Your task to perform on an android device: Do I have any events this weekend? Image 0: 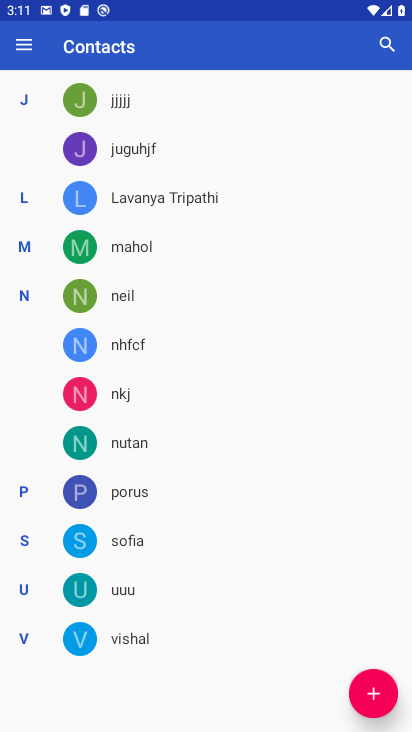
Step 0: press home button
Your task to perform on an android device: Do I have any events this weekend? Image 1: 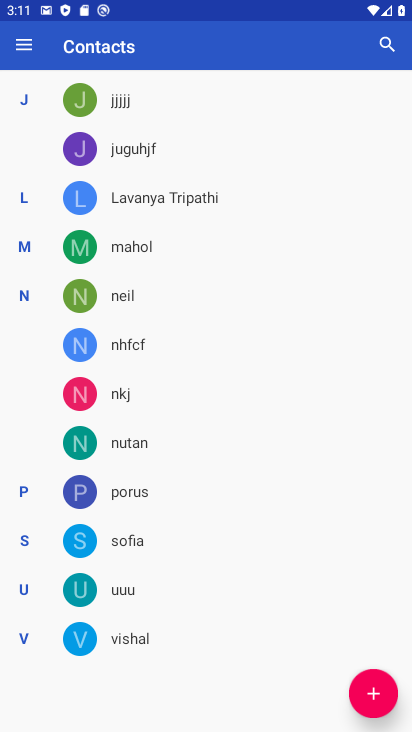
Step 1: press home button
Your task to perform on an android device: Do I have any events this weekend? Image 2: 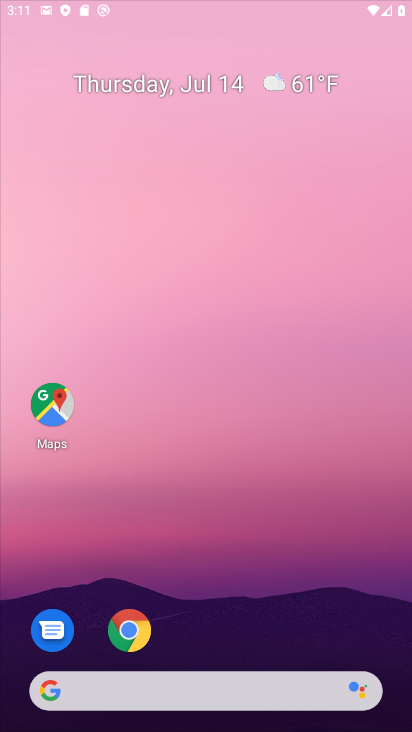
Step 2: press home button
Your task to perform on an android device: Do I have any events this weekend? Image 3: 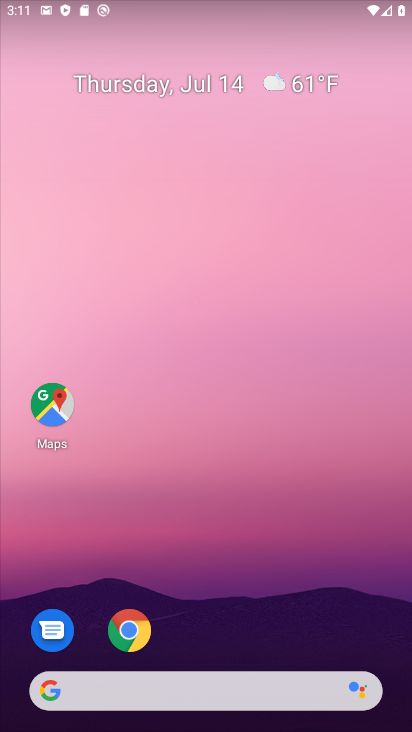
Step 3: drag from (260, 580) to (73, 10)
Your task to perform on an android device: Do I have any events this weekend? Image 4: 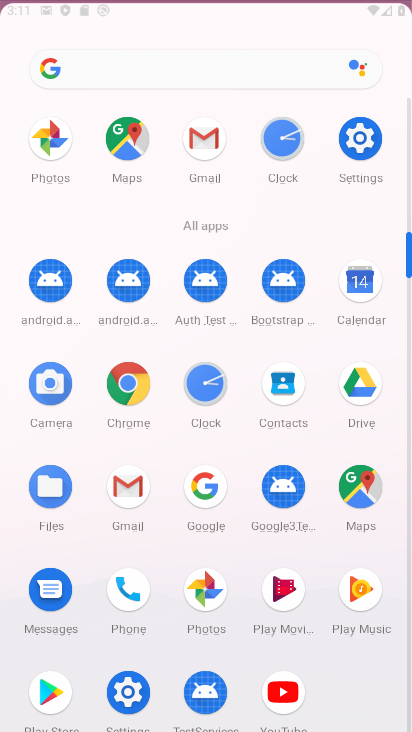
Step 4: drag from (217, 524) to (63, 11)
Your task to perform on an android device: Do I have any events this weekend? Image 5: 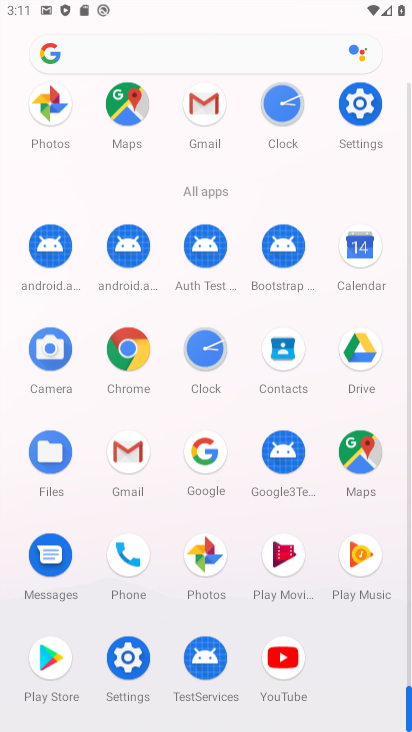
Step 5: drag from (230, 460) to (166, 97)
Your task to perform on an android device: Do I have any events this weekend? Image 6: 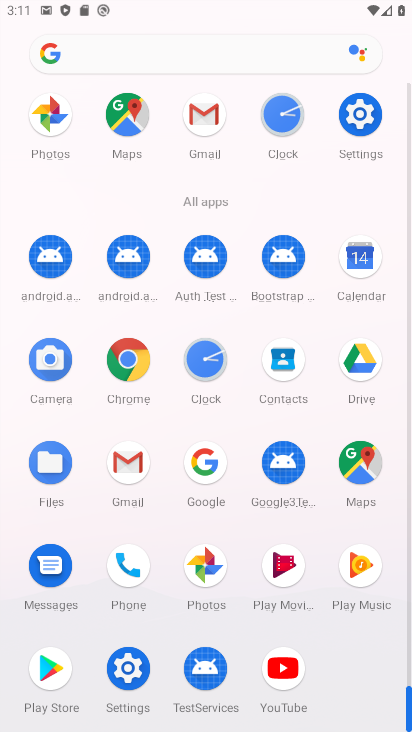
Step 6: click (365, 255)
Your task to perform on an android device: Do I have any events this weekend? Image 7: 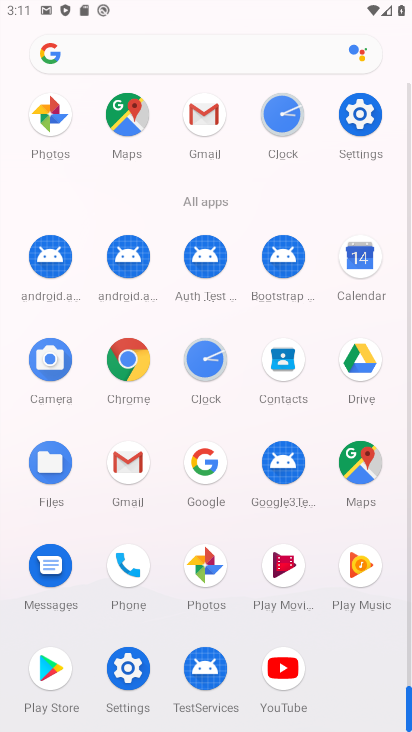
Step 7: click (364, 255)
Your task to perform on an android device: Do I have any events this weekend? Image 8: 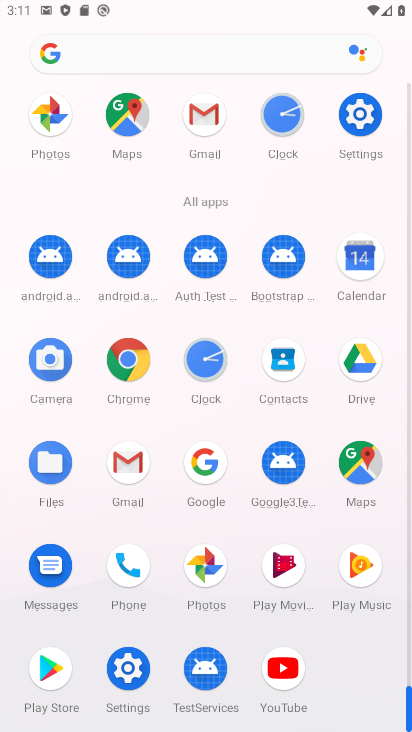
Step 8: click (364, 255)
Your task to perform on an android device: Do I have any events this weekend? Image 9: 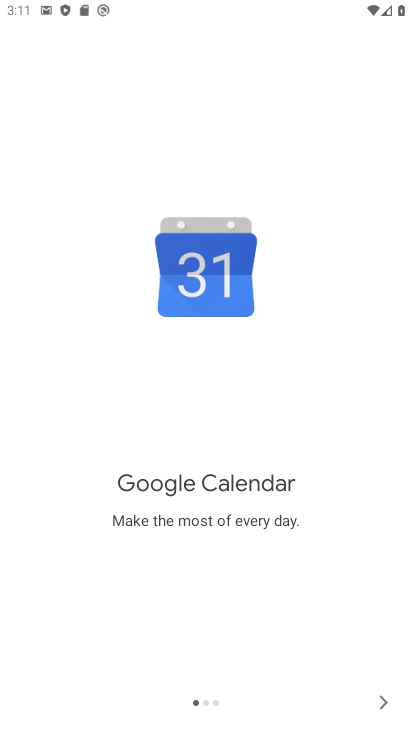
Step 9: click (383, 703)
Your task to perform on an android device: Do I have any events this weekend? Image 10: 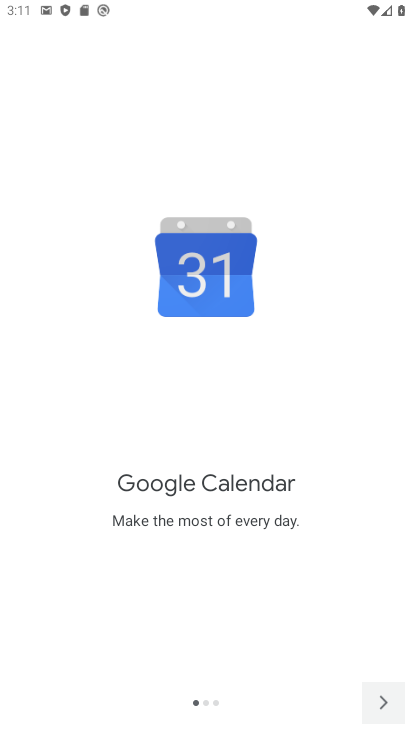
Step 10: click (381, 703)
Your task to perform on an android device: Do I have any events this weekend? Image 11: 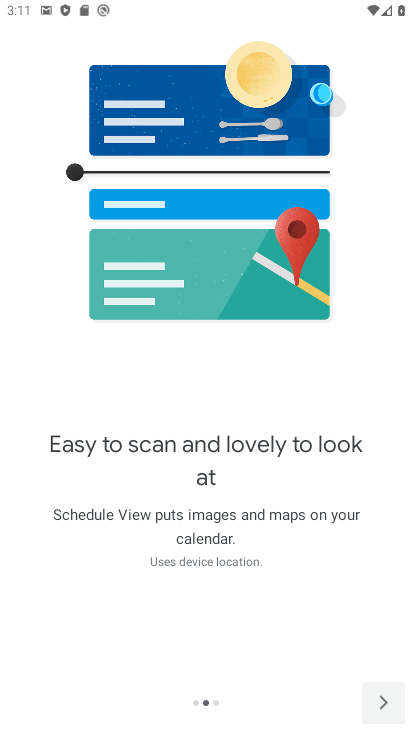
Step 11: click (381, 703)
Your task to perform on an android device: Do I have any events this weekend? Image 12: 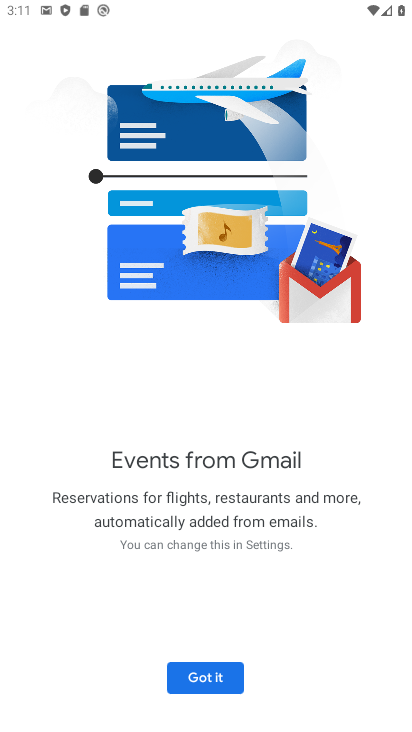
Step 12: click (378, 704)
Your task to perform on an android device: Do I have any events this weekend? Image 13: 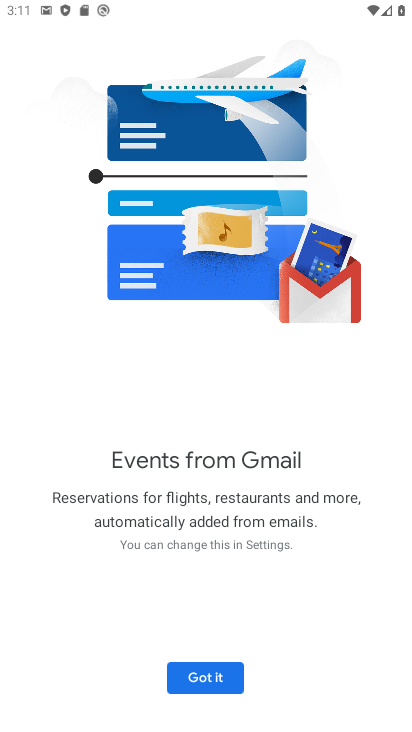
Step 13: click (380, 706)
Your task to perform on an android device: Do I have any events this weekend? Image 14: 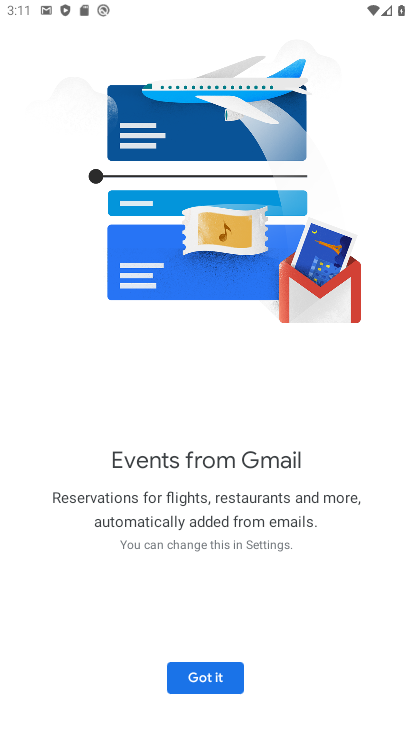
Step 14: click (206, 689)
Your task to perform on an android device: Do I have any events this weekend? Image 15: 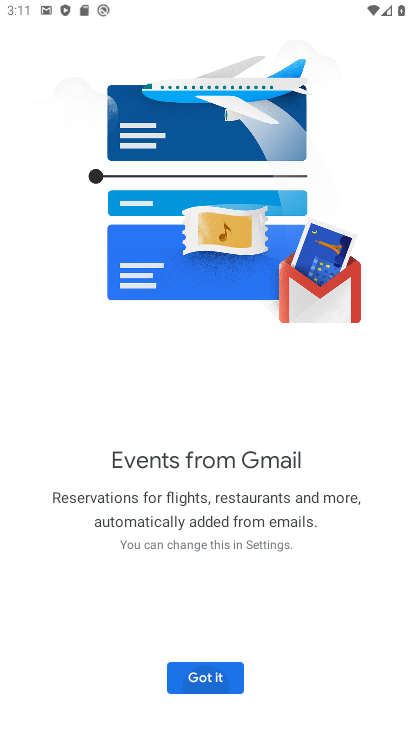
Step 15: click (210, 687)
Your task to perform on an android device: Do I have any events this weekend? Image 16: 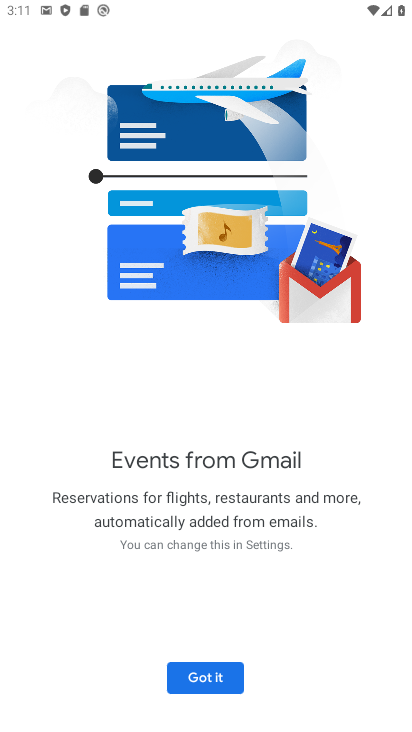
Step 16: click (210, 687)
Your task to perform on an android device: Do I have any events this weekend? Image 17: 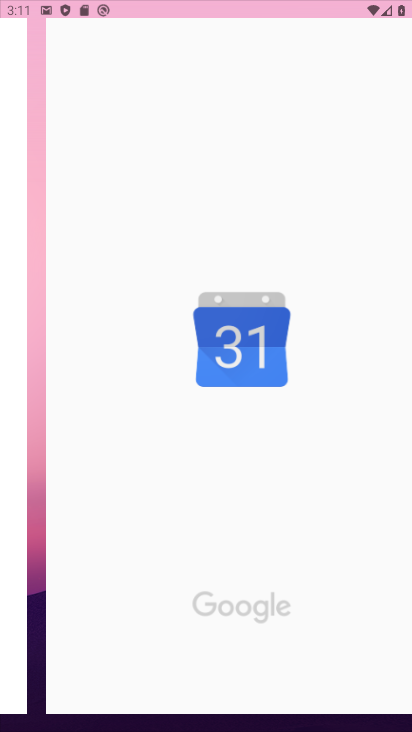
Step 17: click (211, 688)
Your task to perform on an android device: Do I have any events this weekend? Image 18: 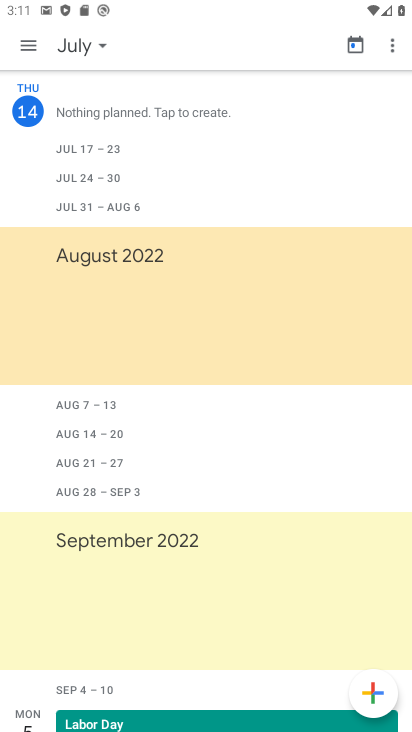
Step 18: click (102, 40)
Your task to perform on an android device: Do I have any events this weekend? Image 19: 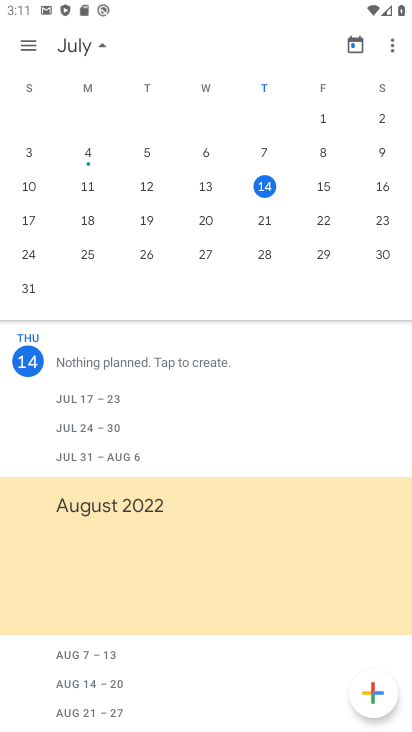
Step 19: click (379, 183)
Your task to perform on an android device: Do I have any events this weekend? Image 20: 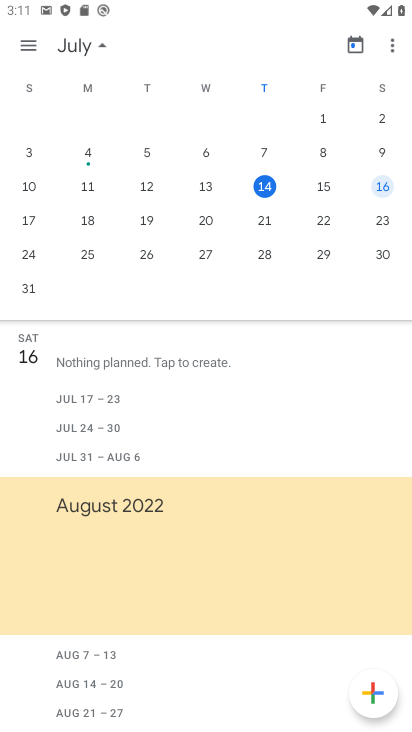
Step 20: click (379, 183)
Your task to perform on an android device: Do I have any events this weekend? Image 21: 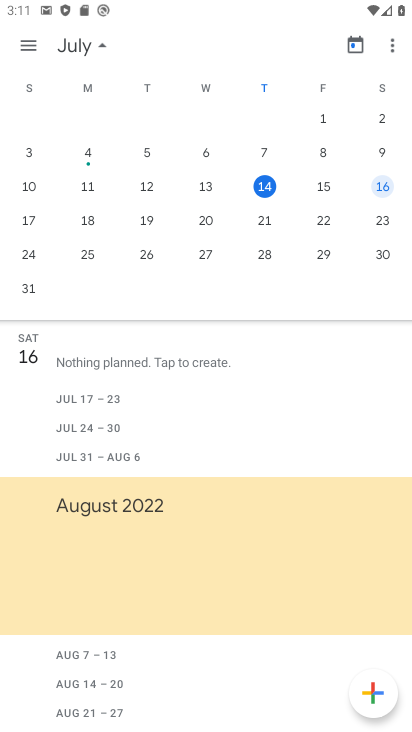
Step 21: click (379, 183)
Your task to perform on an android device: Do I have any events this weekend? Image 22: 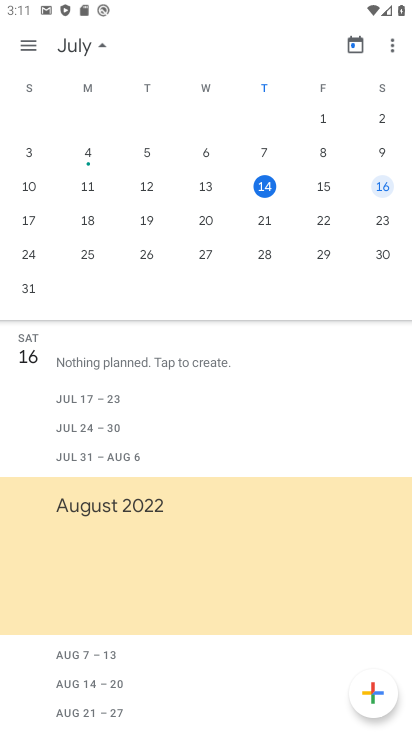
Step 22: click (379, 183)
Your task to perform on an android device: Do I have any events this weekend? Image 23: 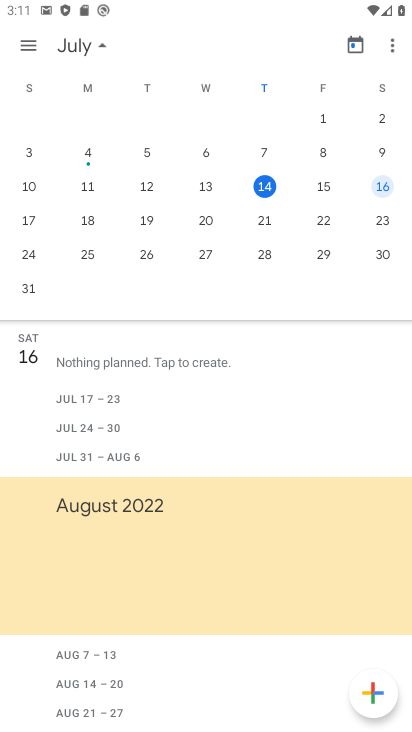
Step 23: click (381, 182)
Your task to perform on an android device: Do I have any events this weekend? Image 24: 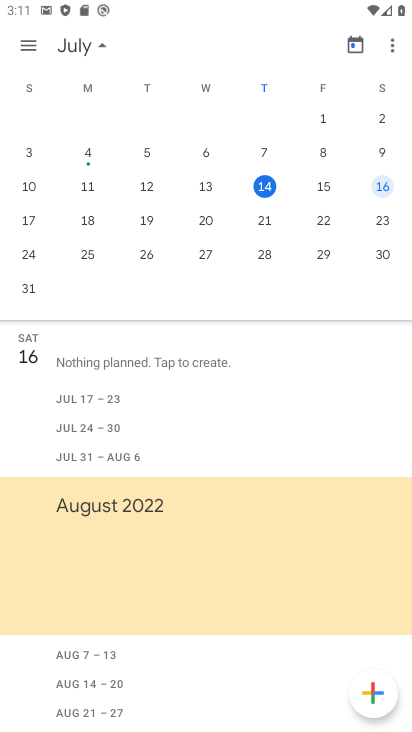
Step 24: click (383, 181)
Your task to perform on an android device: Do I have any events this weekend? Image 25: 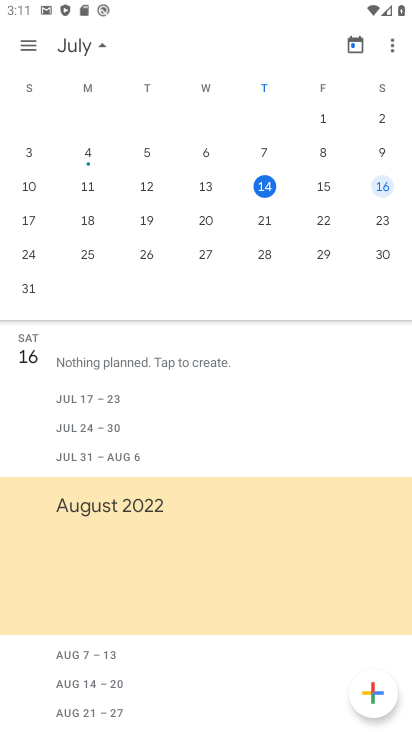
Step 25: task complete